Your task to perform on an android device: turn off notifications settings in the gmail app Image 0: 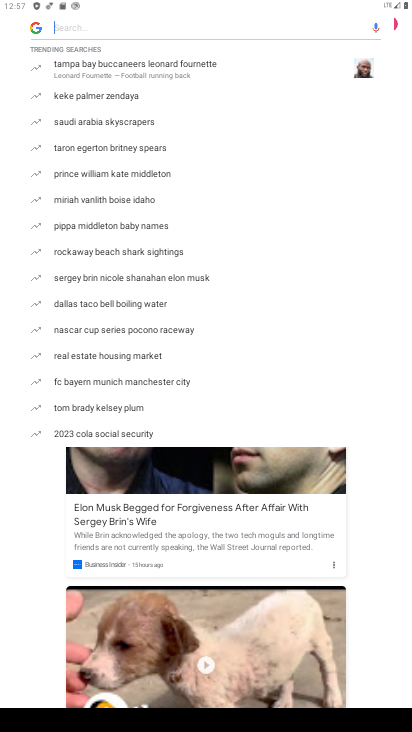
Step 0: press home button
Your task to perform on an android device: turn off notifications settings in the gmail app Image 1: 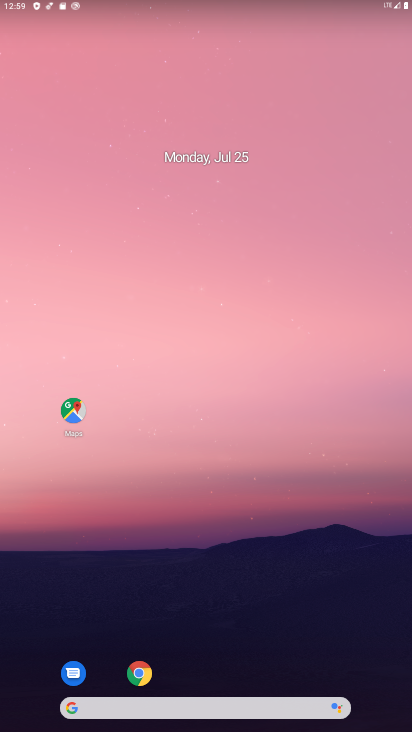
Step 1: drag from (185, 629) to (265, 160)
Your task to perform on an android device: turn off notifications settings in the gmail app Image 2: 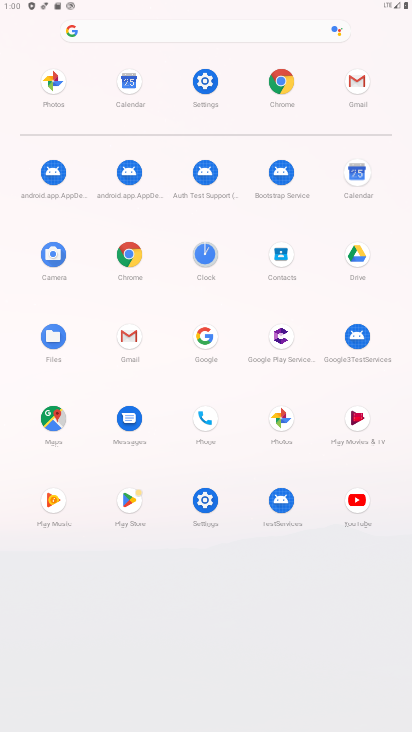
Step 2: click (354, 78)
Your task to perform on an android device: turn off notifications settings in the gmail app Image 3: 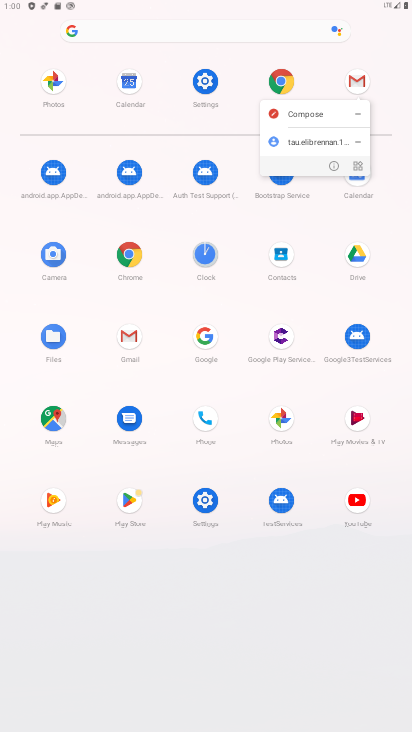
Step 3: click (331, 159)
Your task to perform on an android device: turn off notifications settings in the gmail app Image 4: 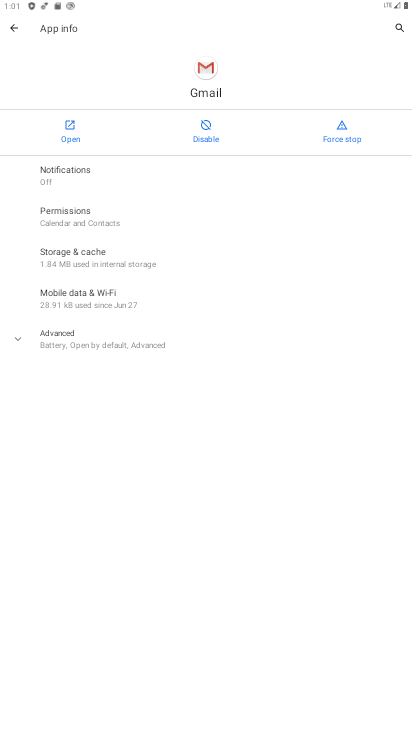
Step 4: click (116, 187)
Your task to perform on an android device: turn off notifications settings in the gmail app Image 5: 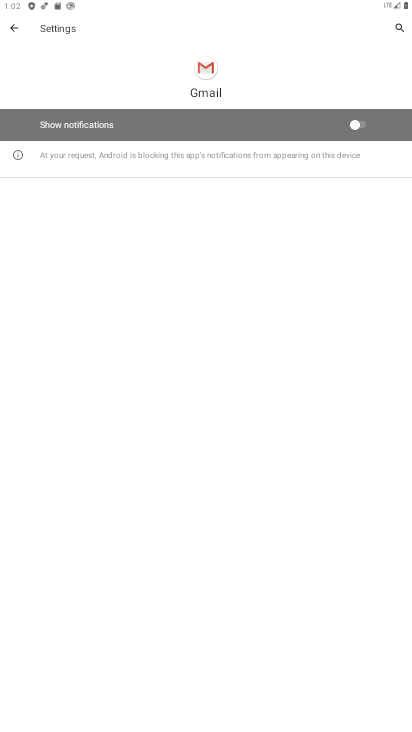
Step 5: task complete